Your task to perform on an android device: Go to settings Image 0: 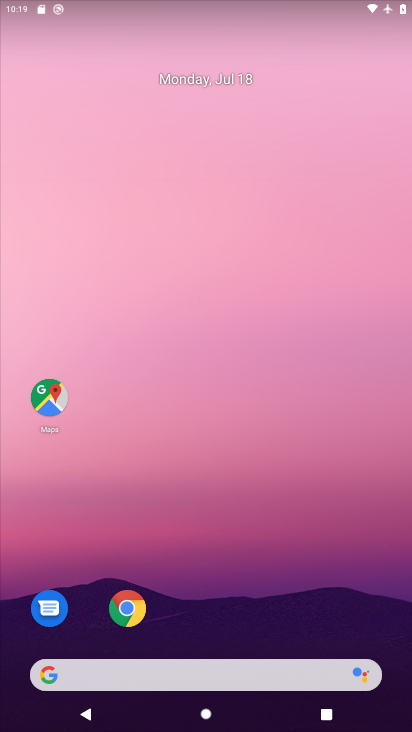
Step 0: click (229, 669)
Your task to perform on an android device: Go to settings Image 1: 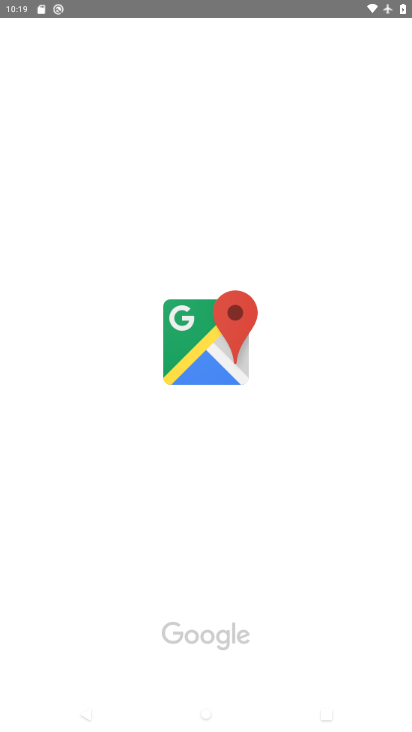
Step 1: press home button
Your task to perform on an android device: Go to settings Image 2: 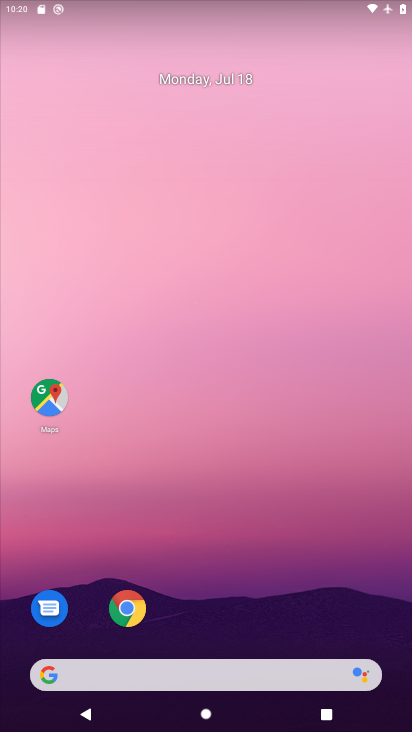
Step 2: drag from (193, 660) to (225, 7)
Your task to perform on an android device: Go to settings Image 3: 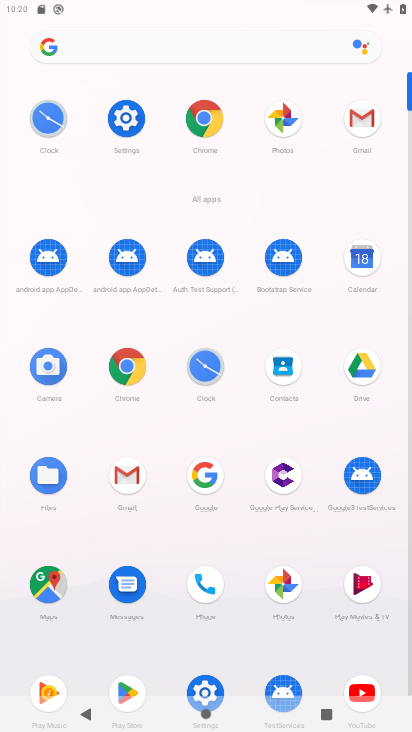
Step 3: click (141, 118)
Your task to perform on an android device: Go to settings Image 4: 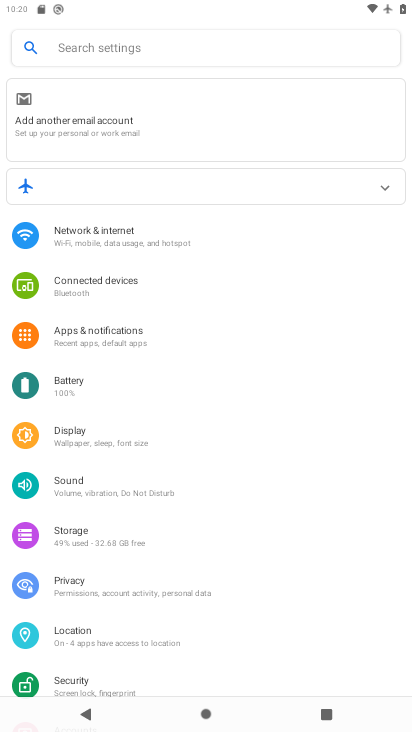
Step 4: task complete